Your task to perform on an android device: Open location settings Image 0: 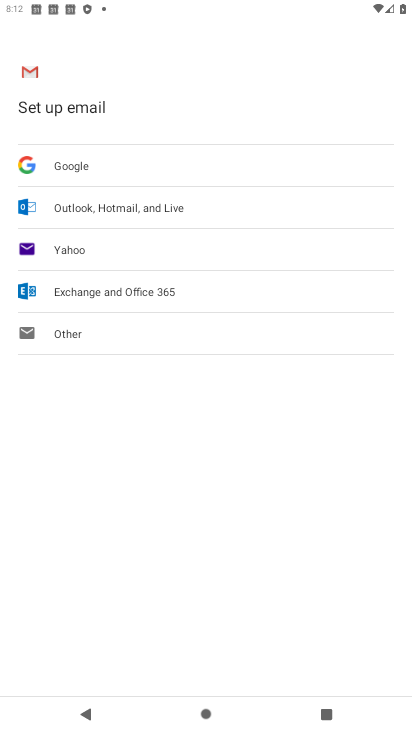
Step 0: press home button
Your task to perform on an android device: Open location settings Image 1: 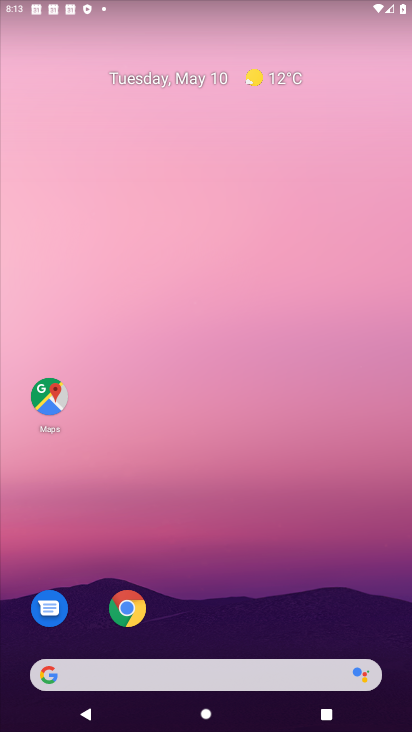
Step 1: drag from (207, 674) to (10, 8)
Your task to perform on an android device: Open location settings Image 2: 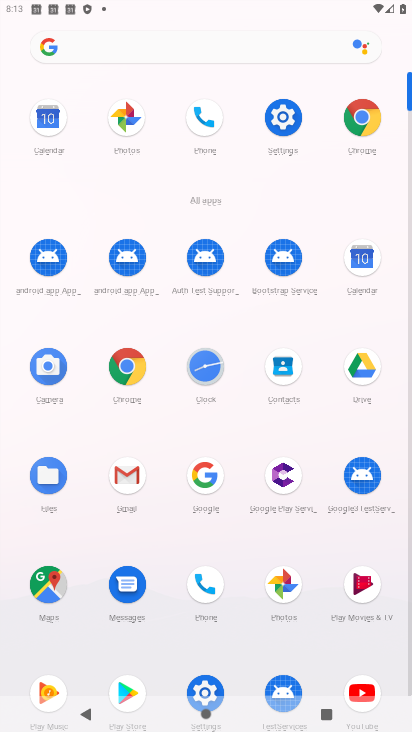
Step 2: click (282, 124)
Your task to perform on an android device: Open location settings Image 3: 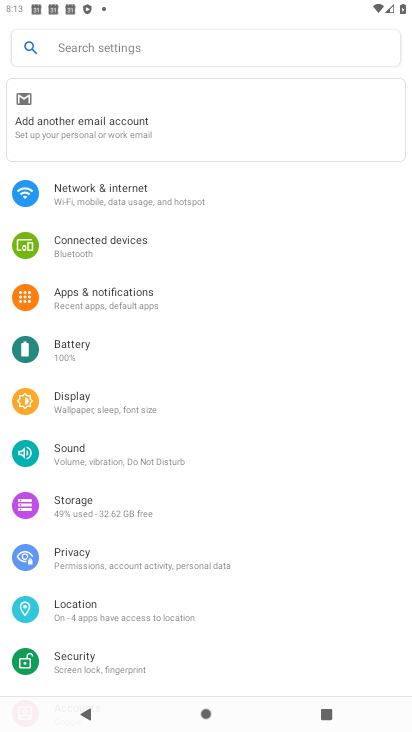
Step 3: click (88, 623)
Your task to perform on an android device: Open location settings Image 4: 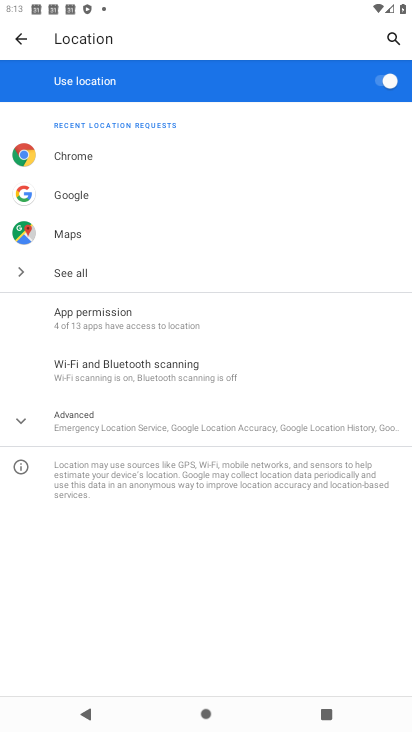
Step 4: task complete